Your task to perform on an android device: set default search engine in the chrome app Image 0: 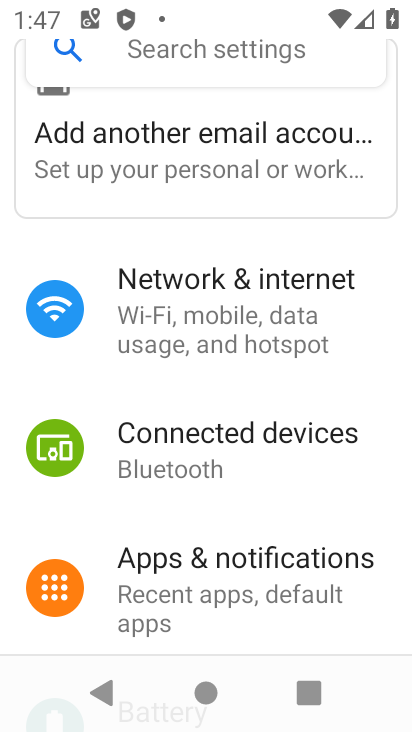
Step 0: press home button
Your task to perform on an android device: set default search engine in the chrome app Image 1: 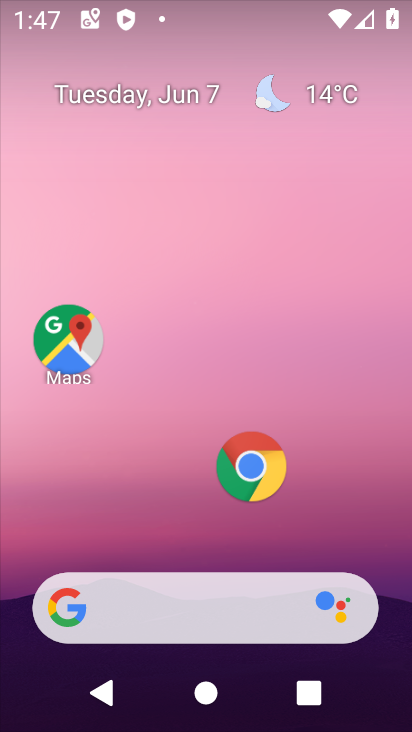
Step 1: click (237, 471)
Your task to perform on an android device: set default search engine in the chrome app Image 2: 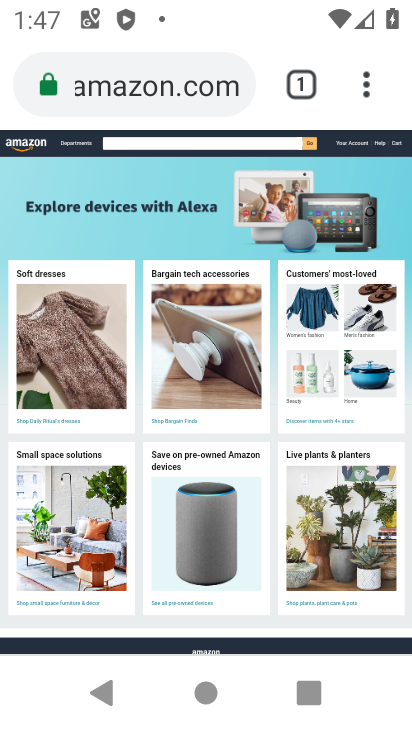
Step 2: click (375, 89)
Your task to perform on an android device: set default search engine in the chrome app Image 3: 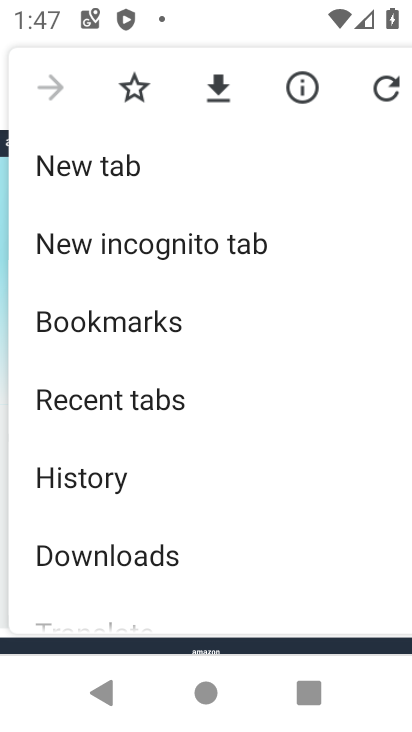
Step 3: click (282, 277)
Your task to perform on an android device: set default search engine in the chrome app Image 4: 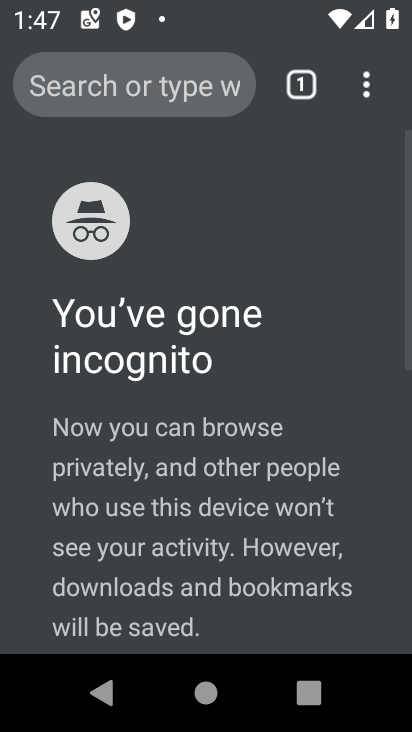
Step 4: click (369, 96)
Your task to perform on an android device: set default search engine in the chrome app Image 5: 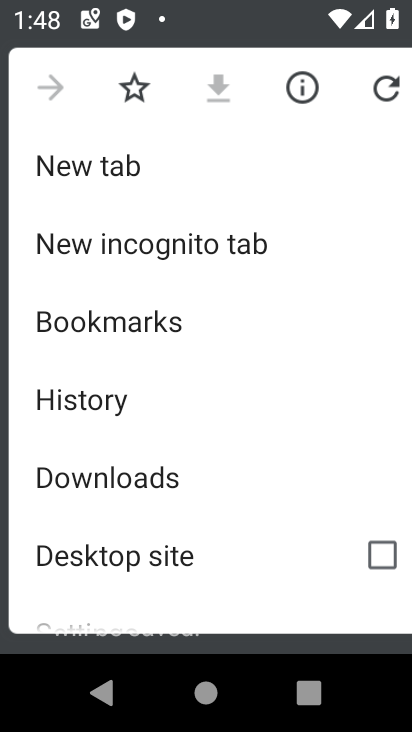
Step 5: drag from (173, 371) to (189, 200)
Your task to perform on an android device: set default search engine in the chrome app Image 6: 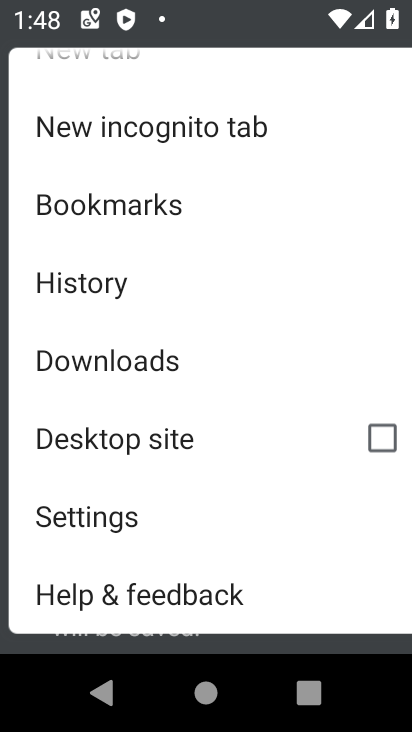
Step 6: click (121, 524)
Your task to perform on an android device: set default search engine in the chrome app Image 7: 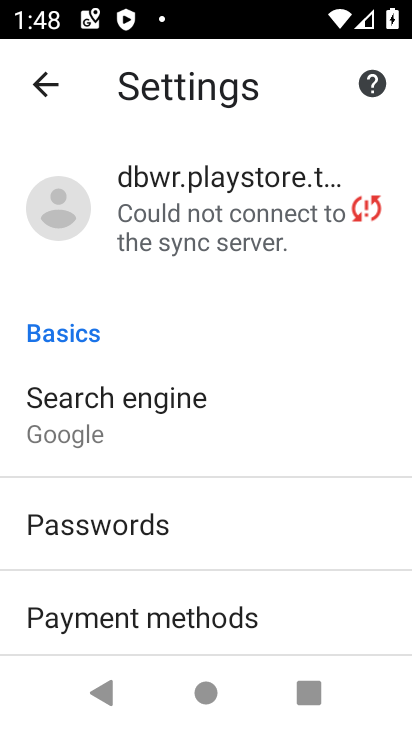
Step 7: click (206, 418)
Your task to perform on an android device: set default search engine in the chrome app Image 8: 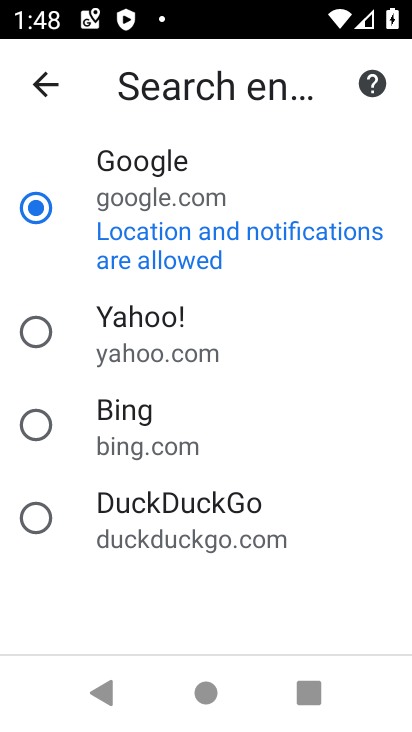
Step 8: click (189, 343)
Your task to perform on an android device: set default search engine in the chrome app Image 9: 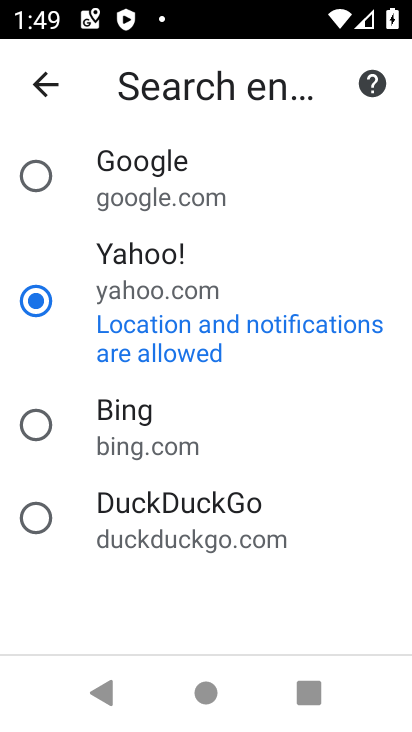
Step 9: task complete